Your task to perform on an android device: Open Android settings Image 0: 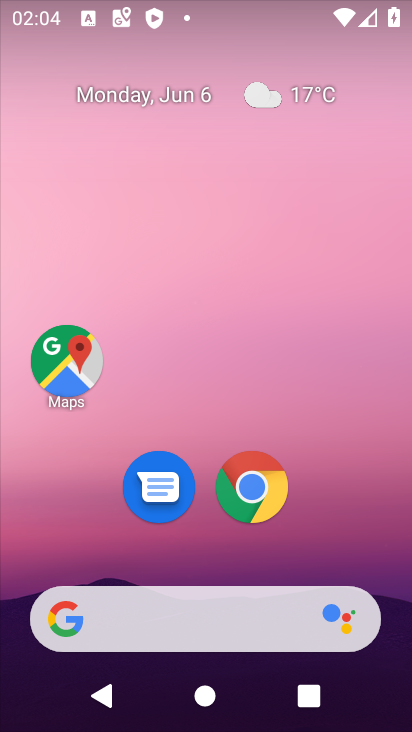
Step 0: drag from (402, 629) to (340, 132)
Your task to perform on an android device: Open Android settings Image 1: 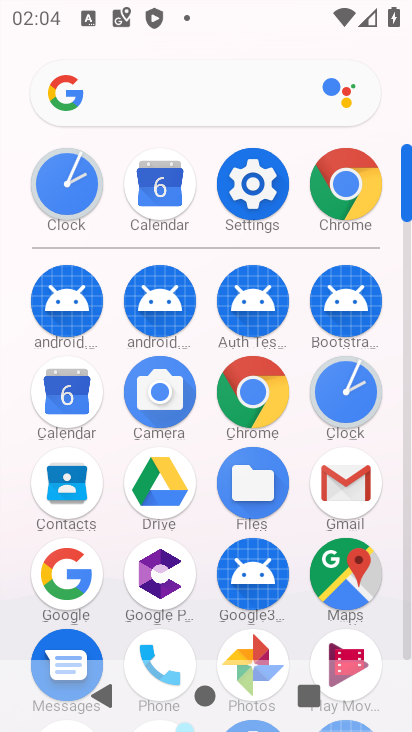
Step 1: click (406, 641)
Your task to perform on an android device: Open Android settings Image 2: 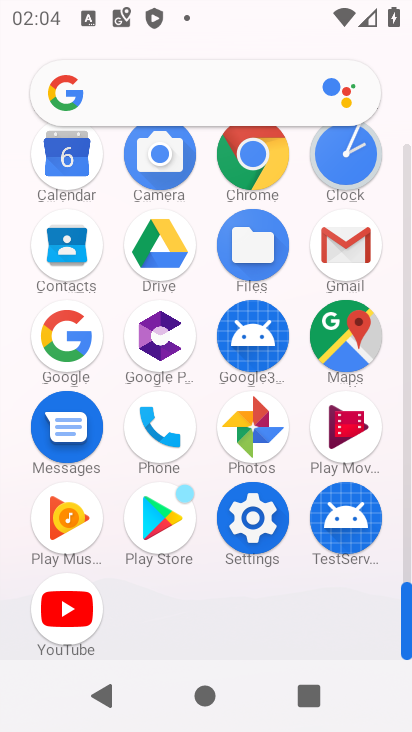
Step 2: click (253, 515)
Your task to perform on an android device: Open Android settings Image 3: 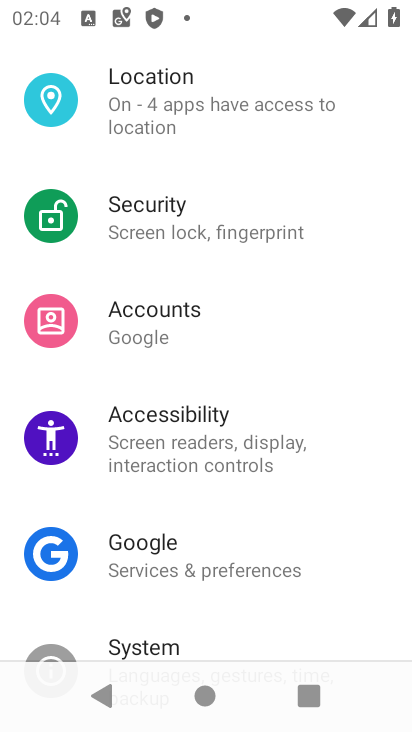
Step 3: drag from (336, 563) to (339, 176)
Your task to perform on an android device: Open Android settings Image 4: 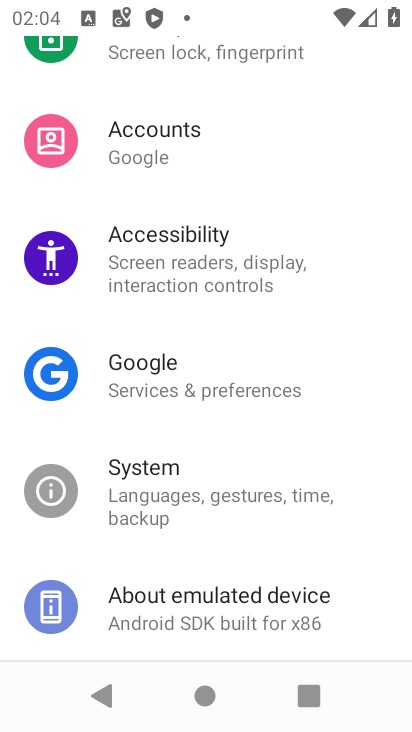
Step 4: click (158, 603)
Your task to perform on an android device: Open Android settings Image 5: 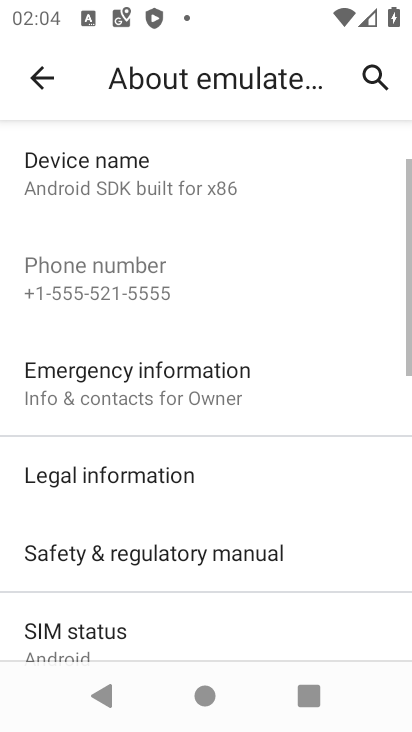
Step 5: task complete